Your task to perform on an android device: Open settings Image 0: 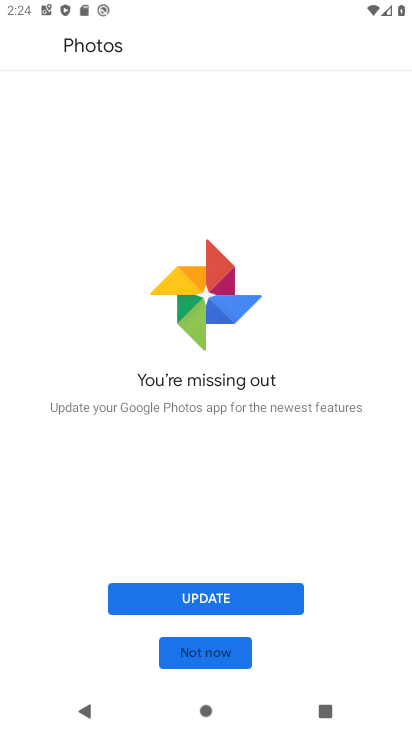
Step 0: press back button
Your task to perform on an android device: Open settings Image 1: 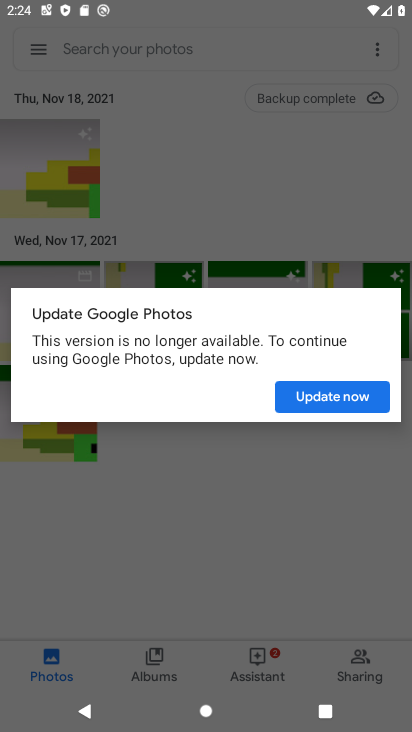
Step 1: press back button
Your task to perform on an android device: Open settings Image 2: 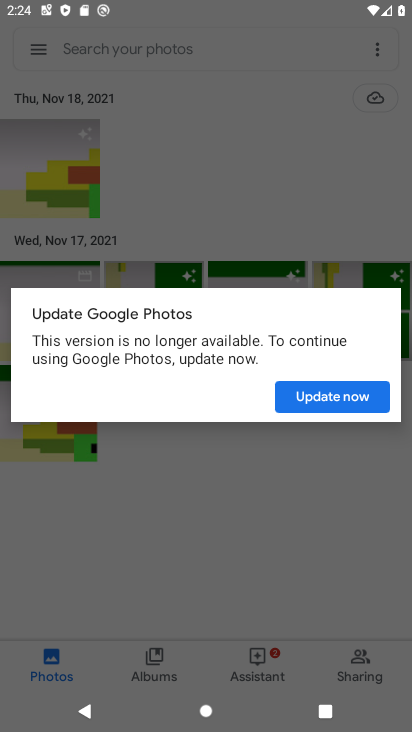
Step 2: press home button
Your task to perform on an android device: Open settings Image 3: 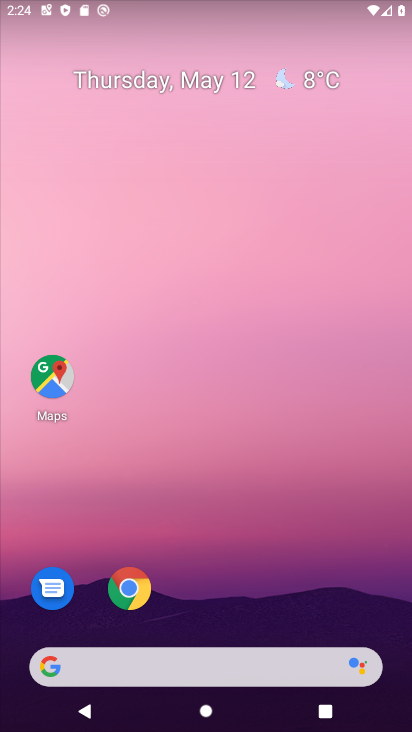
Step 3: drag from (270, 481) to (220, 4)
Your task to perform on an android device: Open settings Image 4: 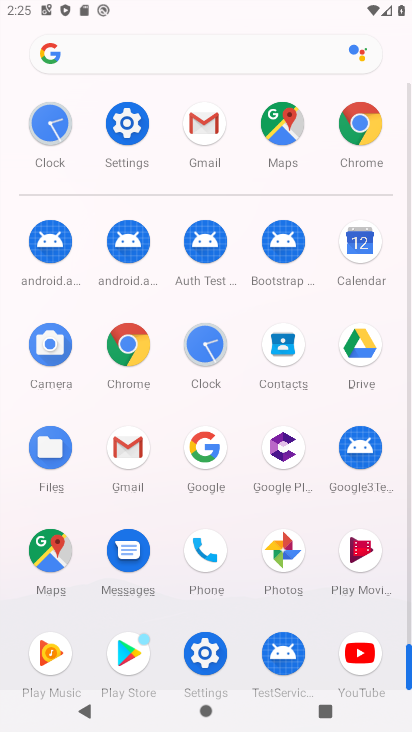
Step 4: click (126, 117)
Your task to perform on an android device: Open settings Image 5: 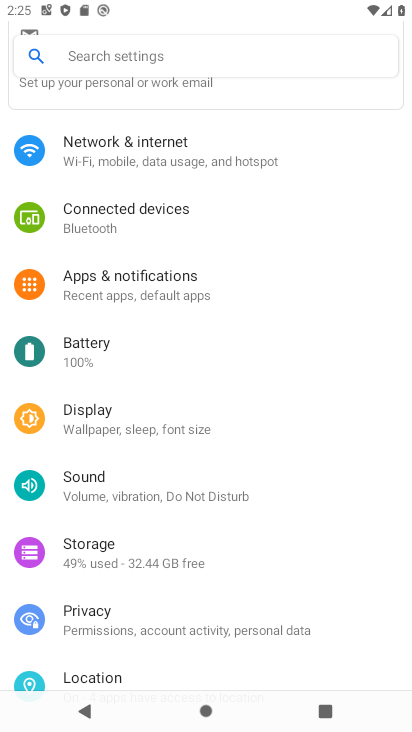
Step 5: task complete